Your task to perform on an android device: turn off location Image 0: 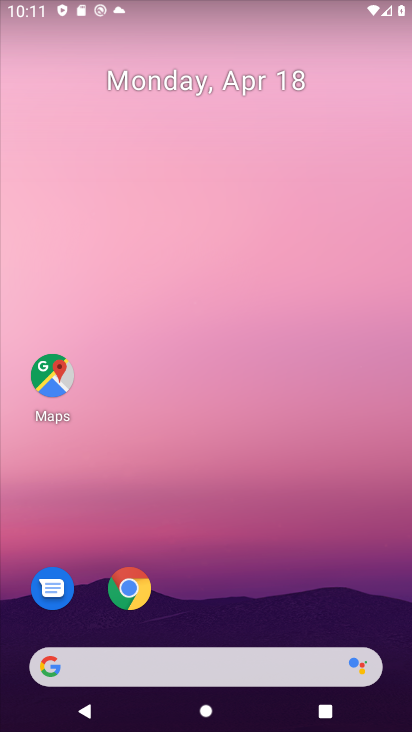
Step 0: drag from (299, 507) to (73, 5)
Your task to perform on an android device: turn off location Image 1: 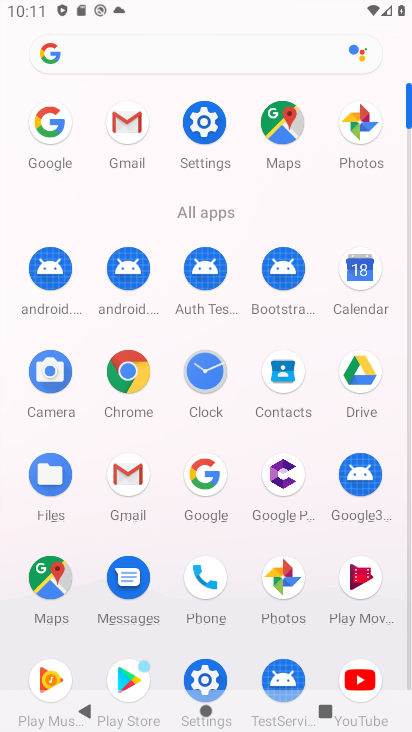
Step 1: drag from (7, 446) to (3, 181)
Your task to perform on an android device: turn off location Image 2: 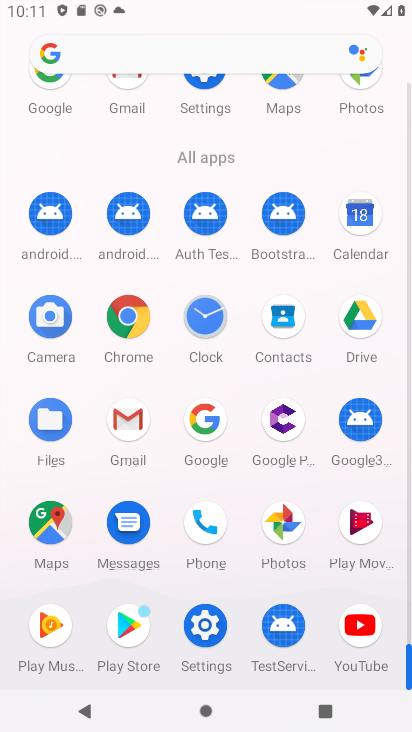
Step 2: click (200, 625)
Your task to perform on an android device: turn off location Image 3: 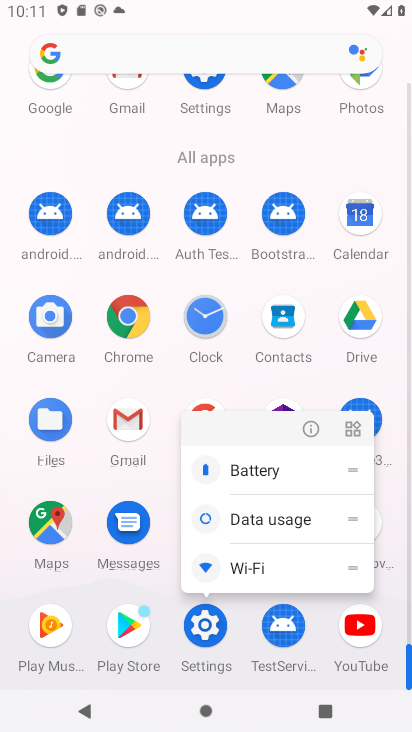
Step 3: click (200, 625)
Your task to perform on an android device: turn off location Image 4: 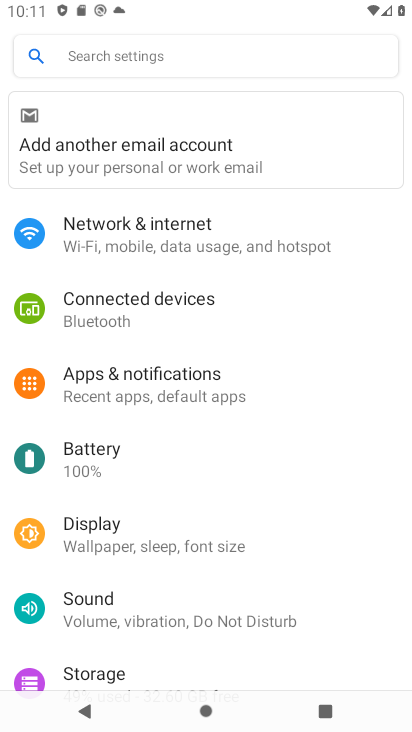
Step 4: drag from (260, 578) to (265, 160)
Your task to perform on an android device: turn off location Image 5: 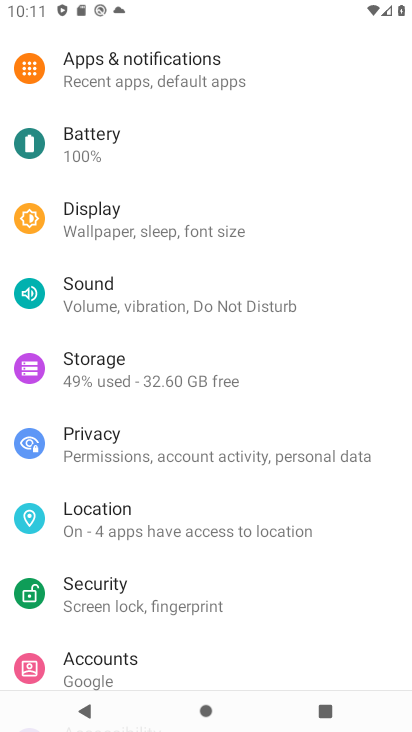
Step 5: click (140, 526)
Your task to perform on an android device: turn off location Image 6: 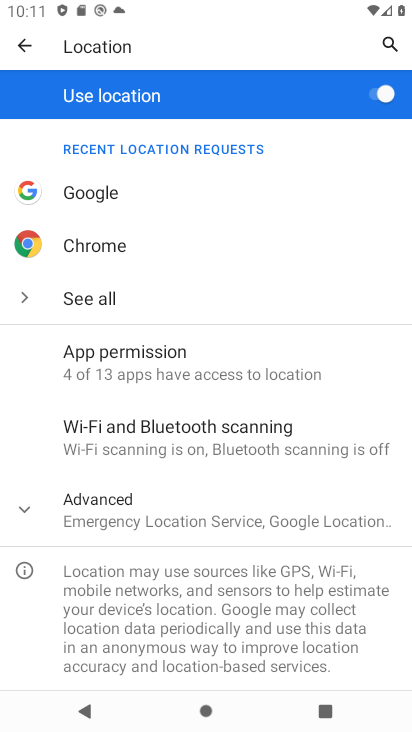
Step 6: click (210, 512)
Your task to perform on an android device: turn off location Image 7: 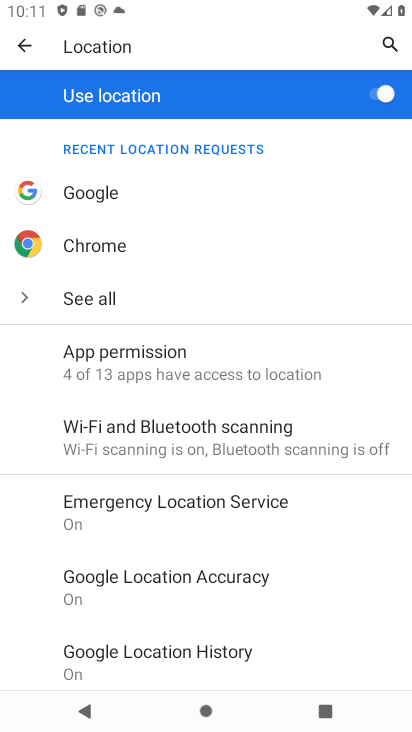
Step 7: click (371, 91)
Your task to perform on an android device: turn off location Image 8: 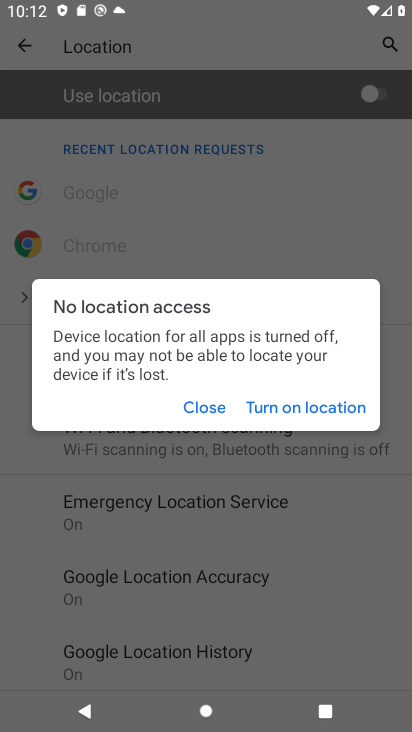
Step 8: click (210, 400)
Your task to perform on an android device: turn off location Image 9: 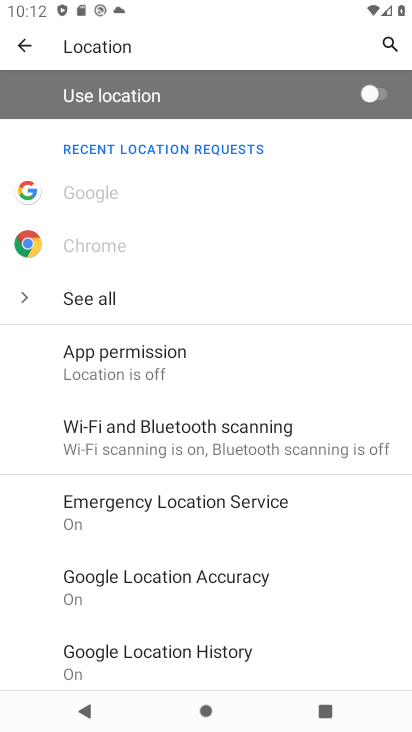
Step 9: task complete